Your task to perform on an android device: Open my contact list Image 0: 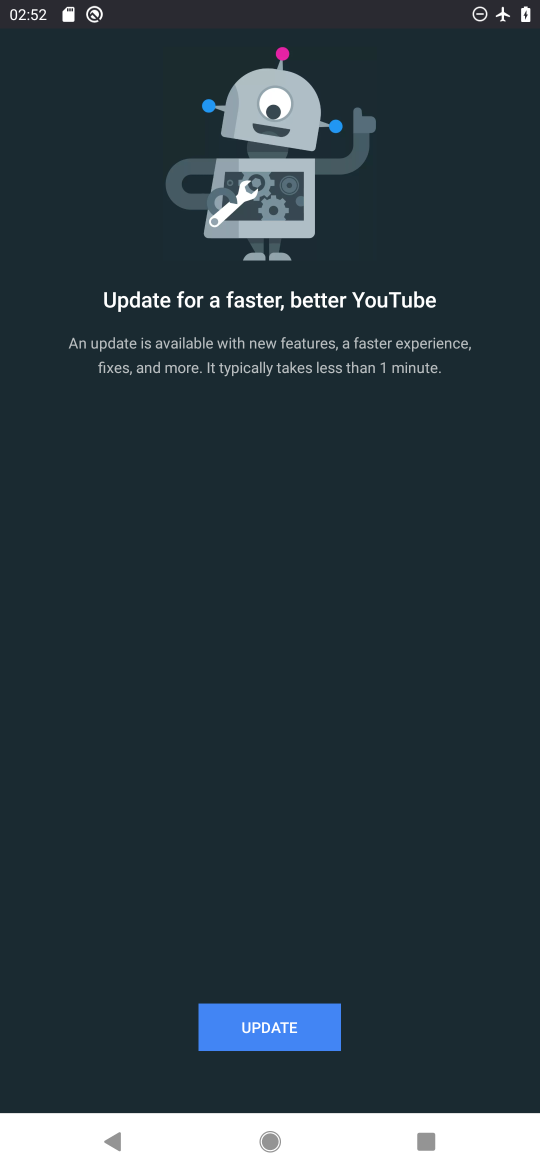
Step 0: press home button
Your task to perform on an android device: Open my contact list Image 1: 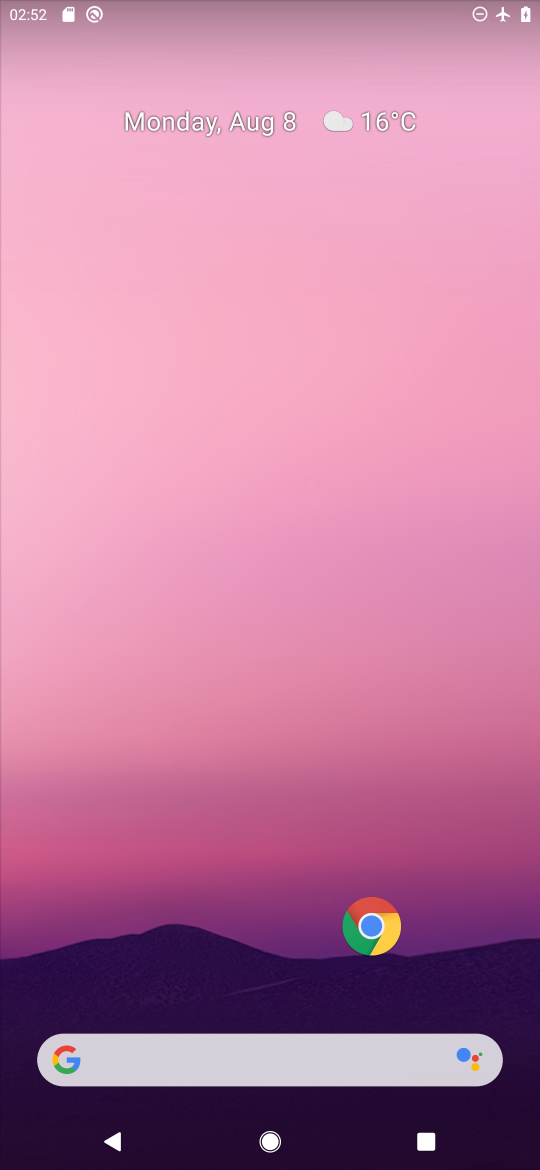
Step 1: drag from (302, 1014) to (221, 721)
Your task to perform on an android device: Open my contact list Image 2: 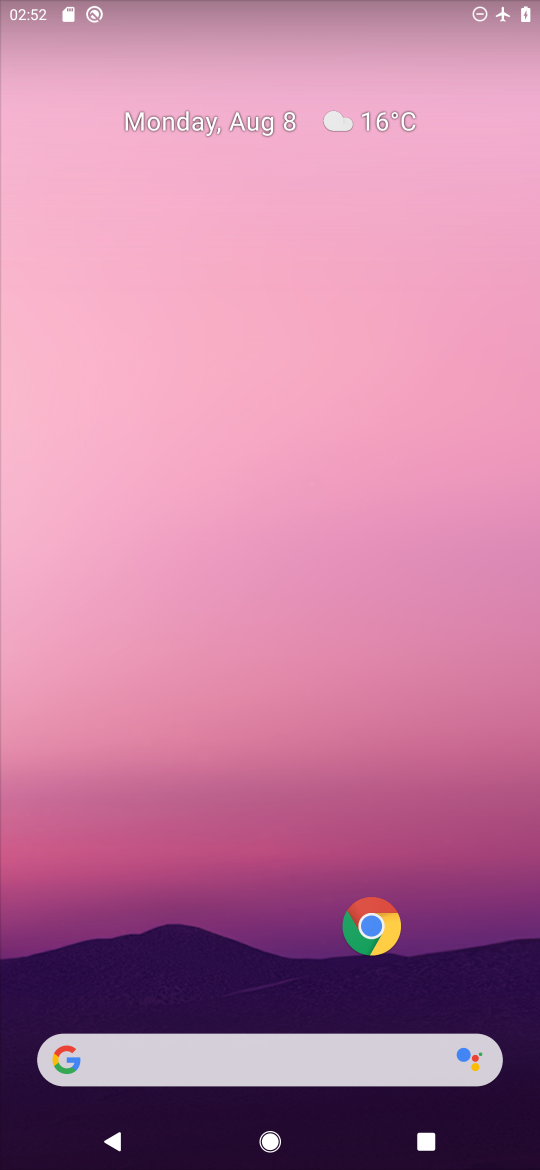
Step 2: drag from (181, 1051) to (227, 71)
Your task to perform on an android device: Open my contact list Image 3: 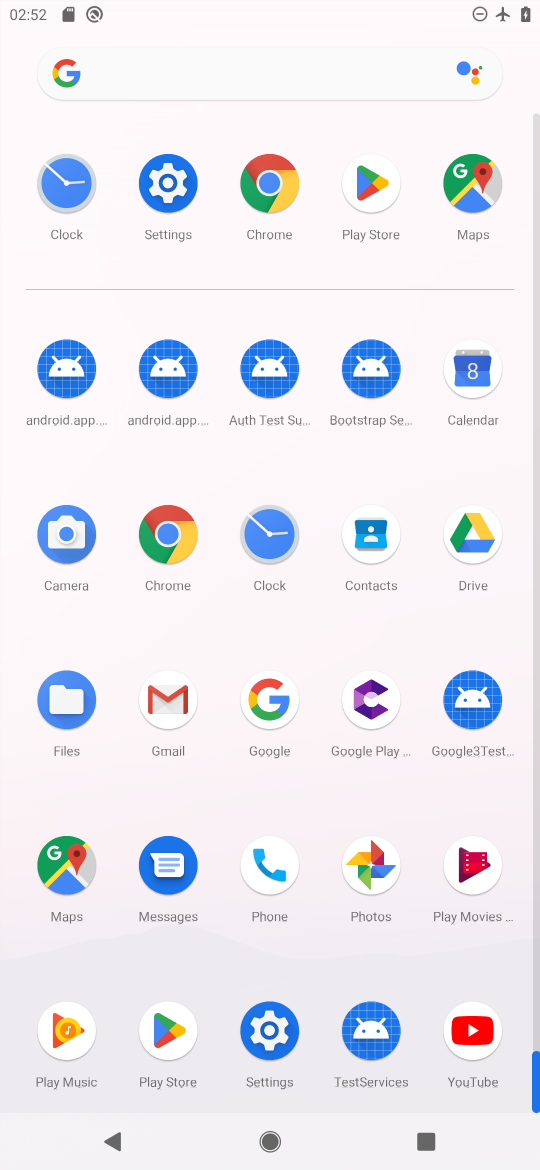
Step 3: drag from (325, 945) to (363, 276)
Your task to perform on an android device: Open my contact list Image 4: 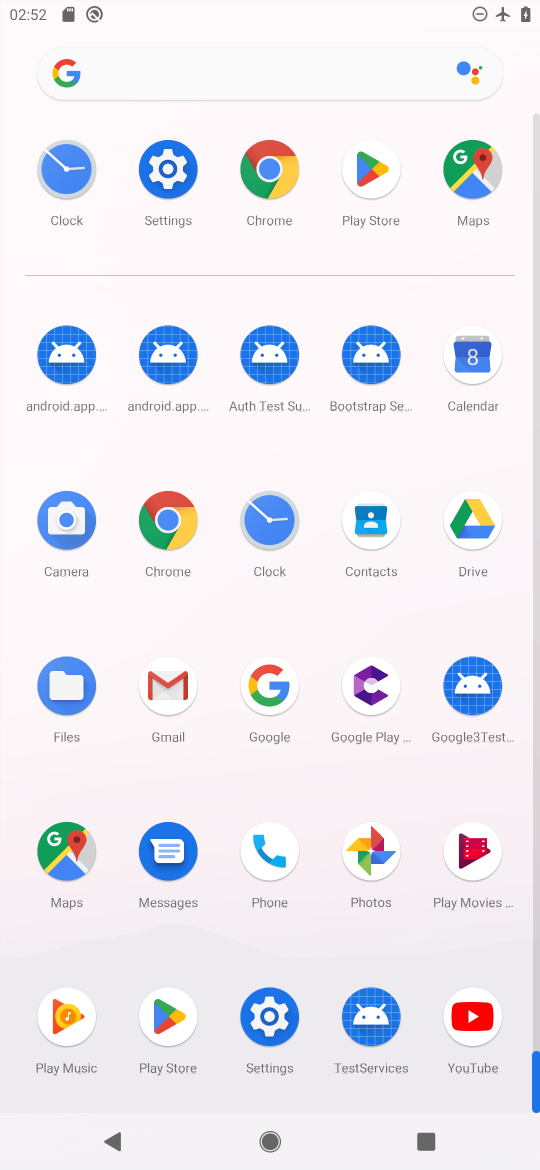
Step 4: click (267, 865)
Your task to perform on an android device: Open my contact list Image 5: 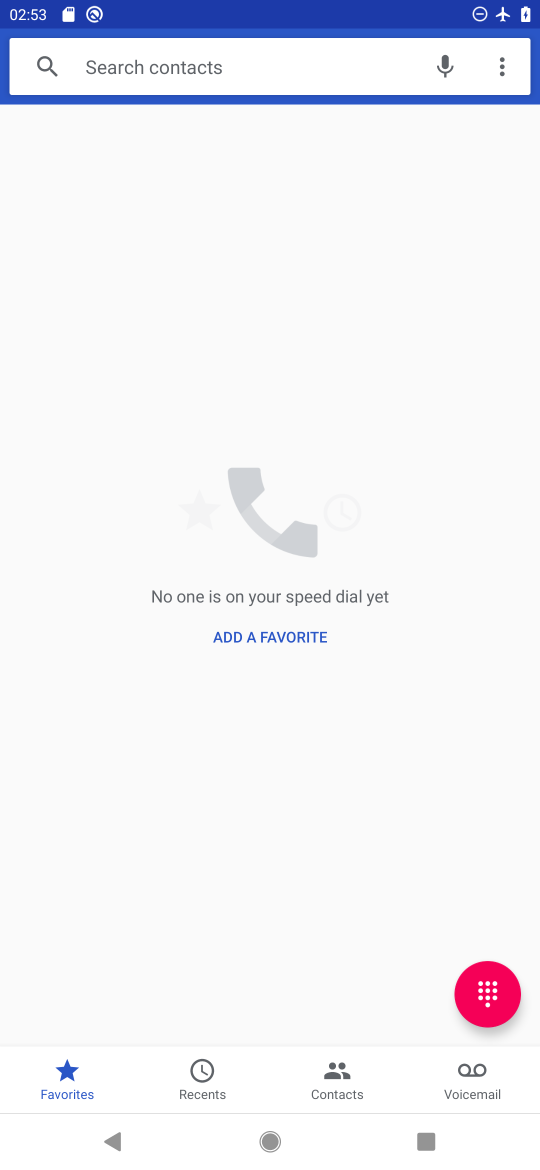
Step 5: click (369, 1066)
Your task to perform on an android device: Open my contact list Image 6: 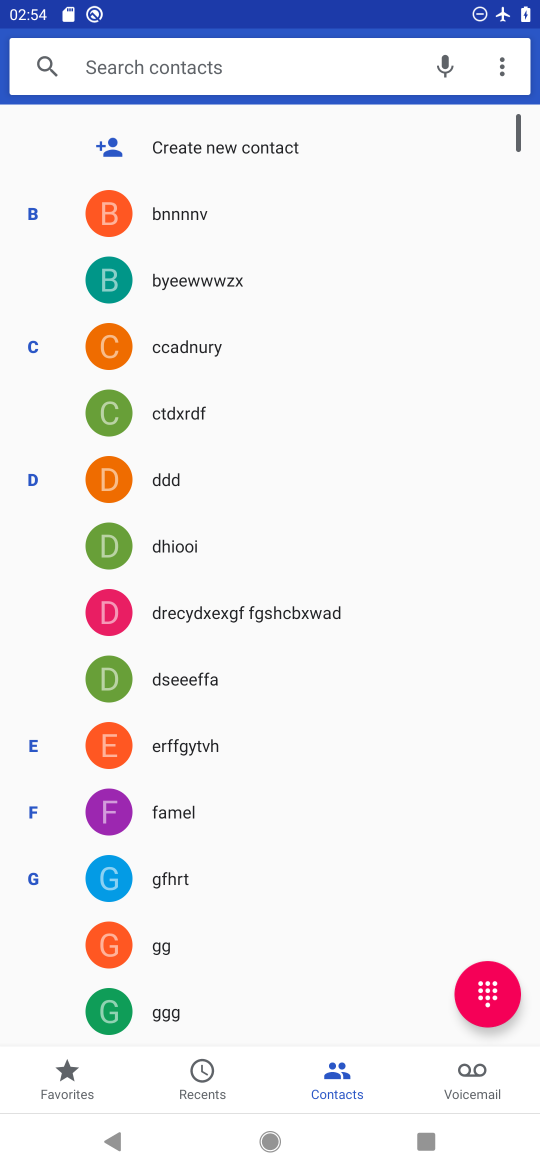
Step 6: task complete